Your task to perform on an android device: Search for vegetarian restaurants on Maps Image 0: 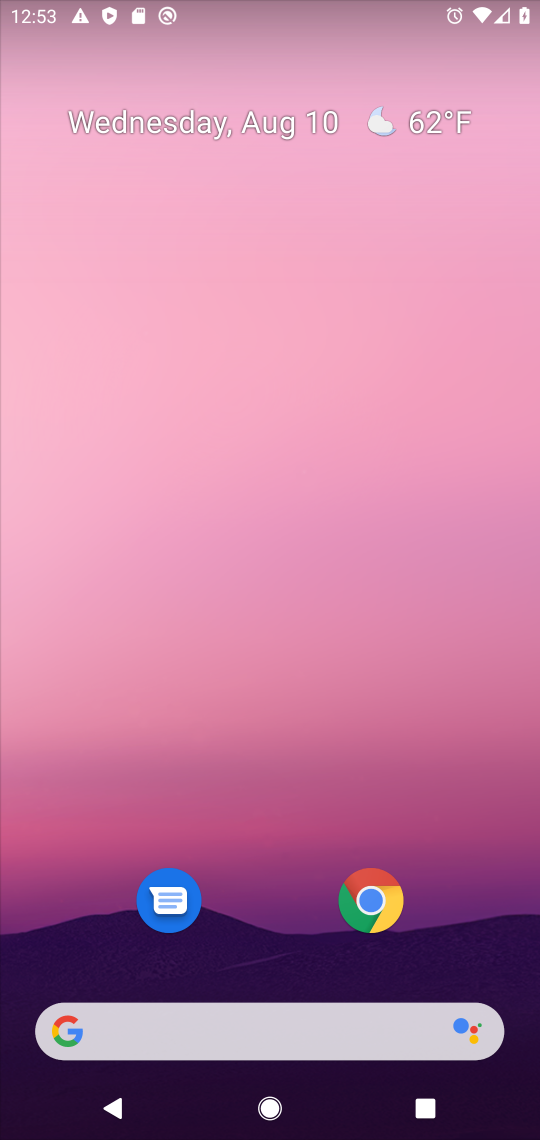
Step 0: drag from (309, 800) to (377, 4)
Your task to perform on an android device: Search for vegetarian restaurants on Maps Image 1: 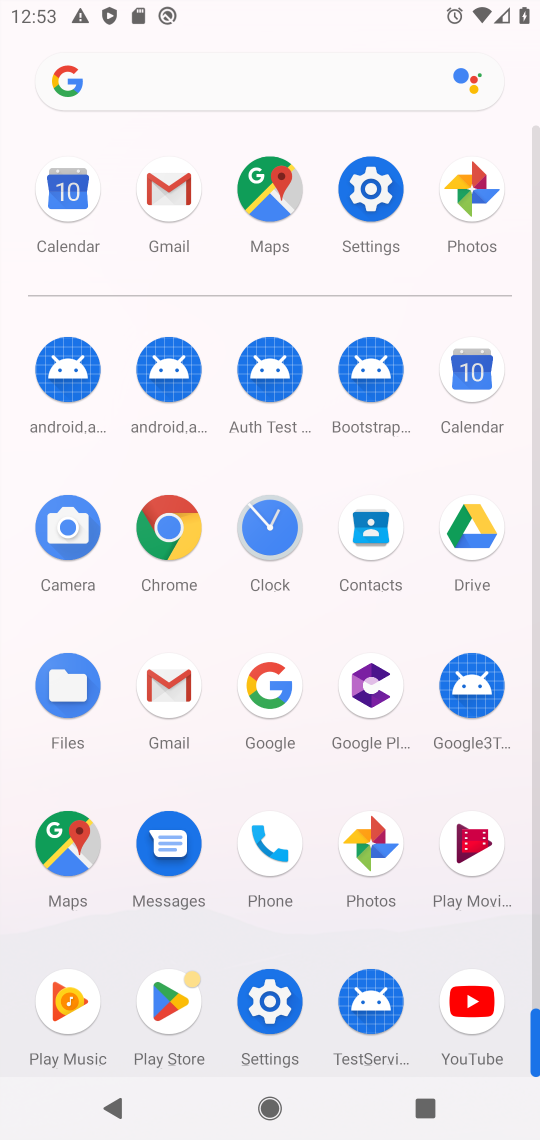
Step 1: click (277, 189)
Your task to perform on an android device: Search for vegetarian restaurants on Maps Image 2: 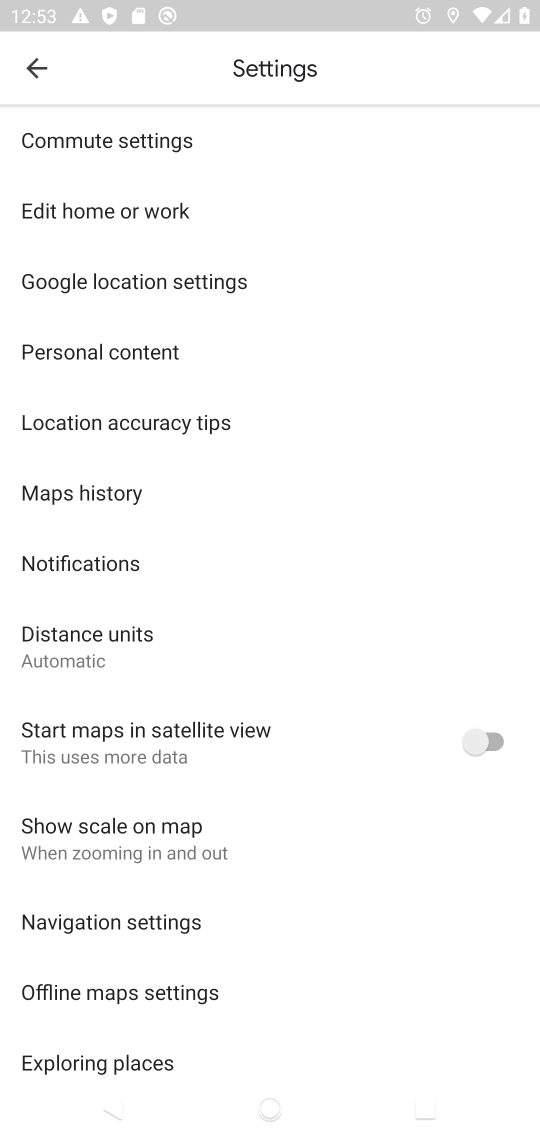
Step 2: click (38, 61)
Your task to perform on an android device: Search for vegetarian restaurants on Maps Image 3: 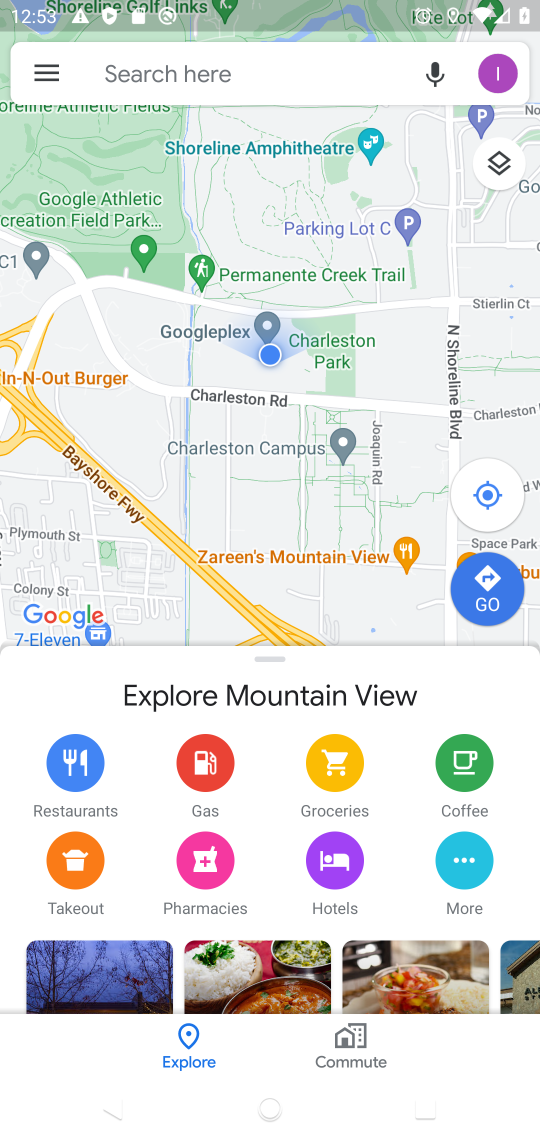
Step 3: click (194, 72)
Your task to perform on an android device: Search for vegetarian restaurants on Maps Image 4: 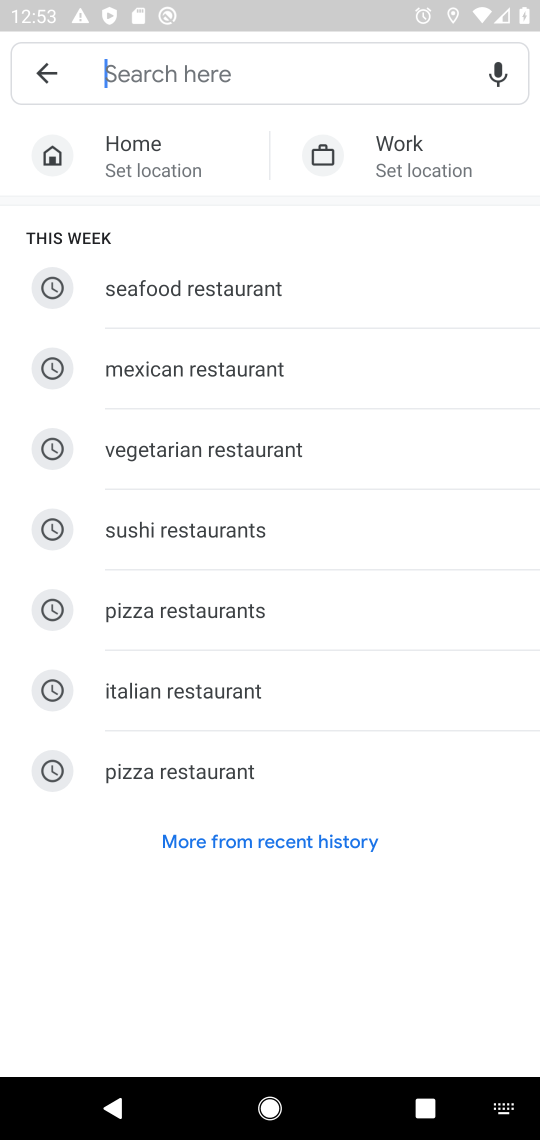
Step 4: click (262, 441)
Your task to perform on an android device: Search for vegetarian restaurants on Maps Image 5: 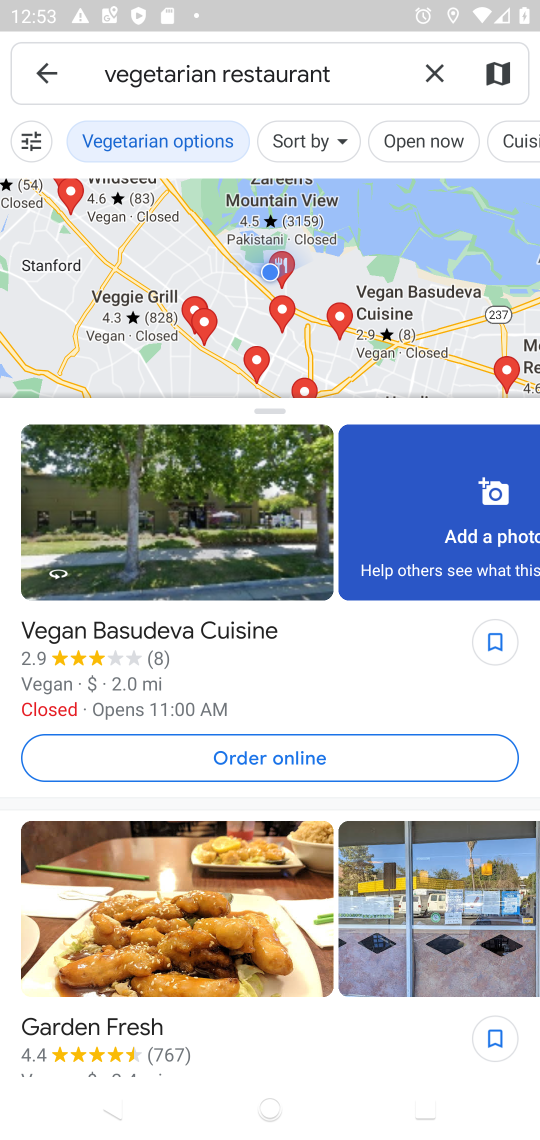
Step 5: task complete